Your task to perform on an android device: move an email to a new category in the gmail app Image 0: 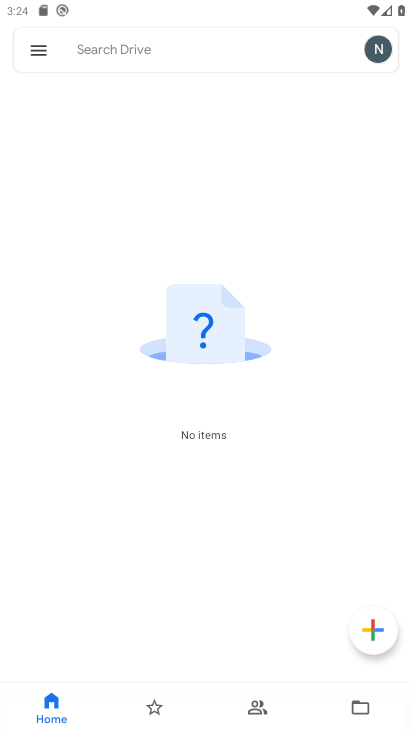
Step 0: task impossible